Your task to perform on an android device: check the backup settings in the google photos Image 0: 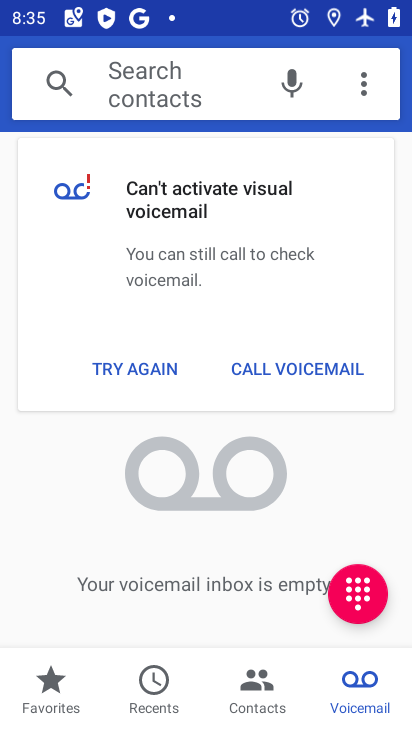
Step 0: press home button
Your task to perform on an android device: check the backup settings in the google photos Image 1: 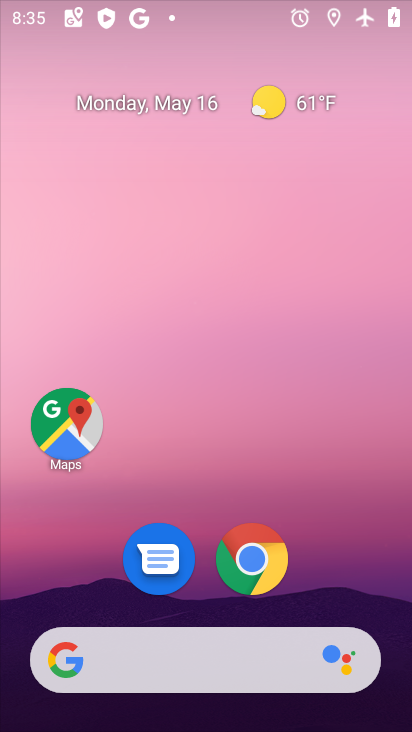
Step 1: drag from (346, 578) to (345, 235)
Your task to perform on an android device: check the backup settings in the google photos Image 2: 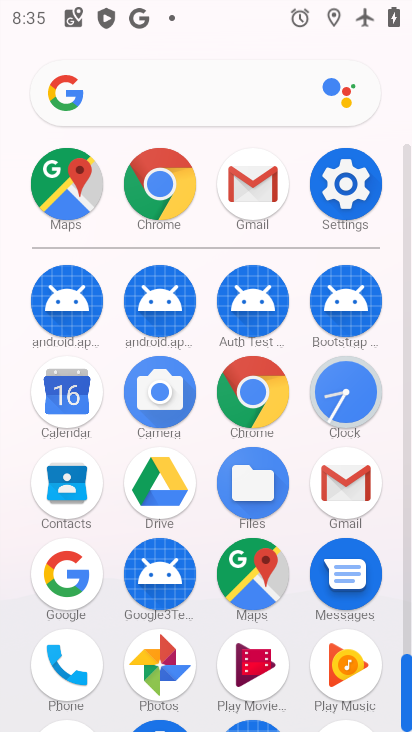
Step 2: click (188, 666)
Your task to perform on an android device: check the backup settings in the google photos Image 3: 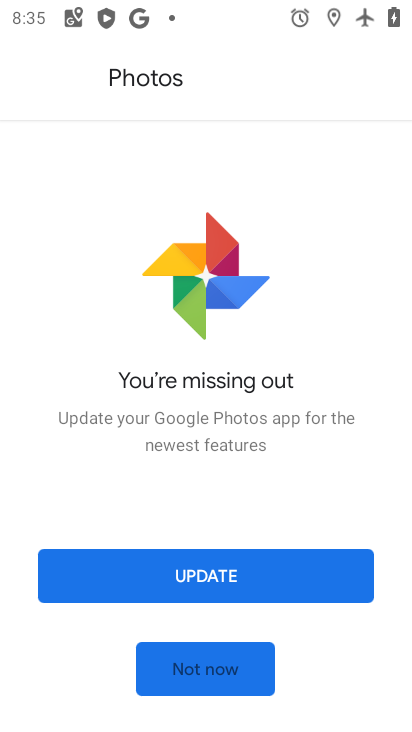
Step 3: click (218, 585)
Your task to perform on an android device: check the backup settings in the google photos Image 4: 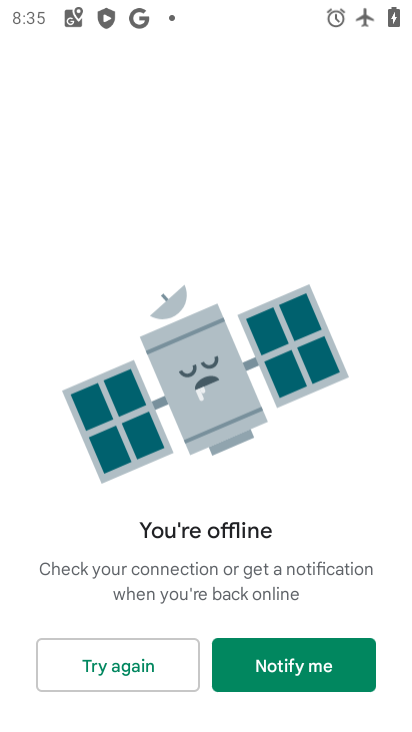
Step 4: task complete